Your task to perform on an android device: Show me productivity apps on the Play Store Image 0: 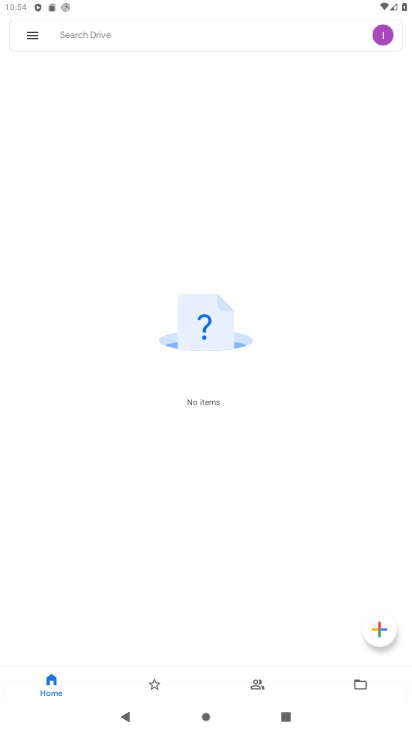
Step 0: click (411, 369)
Your task to perform on an android device: Show me productivity apps on the Play Store Image 1: 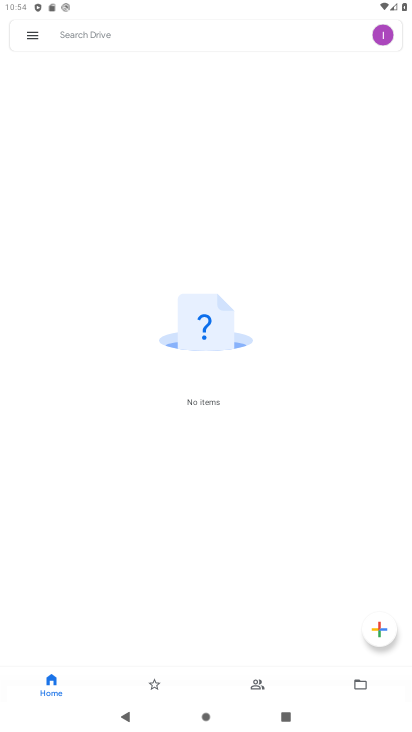
Step 1: press back button
Your task to perform on an android device: Show me productivity apps on the Play Store Image 2: 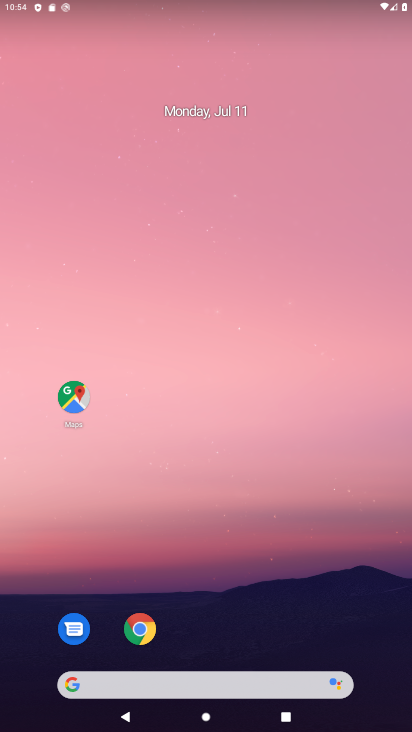
Step 2: drag from (332, 687) to (185, 20)
Your task to perform on an android device: Show me productivity apps on the Play Store Image 3: 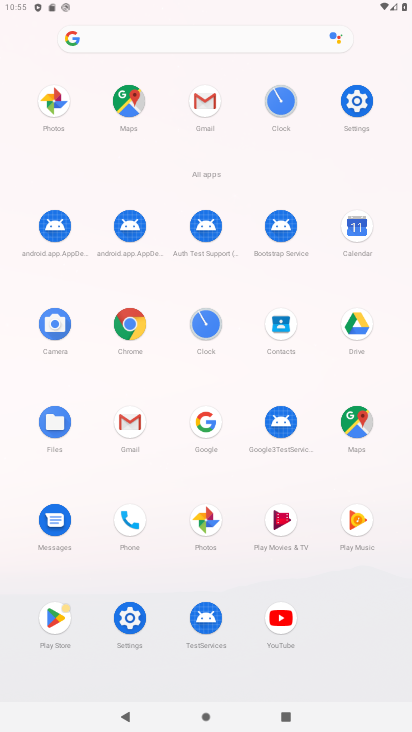
Step 3: click (45, 605)
Your task to perform on an android device: Show me productivity apps on the Play Store Image 4: 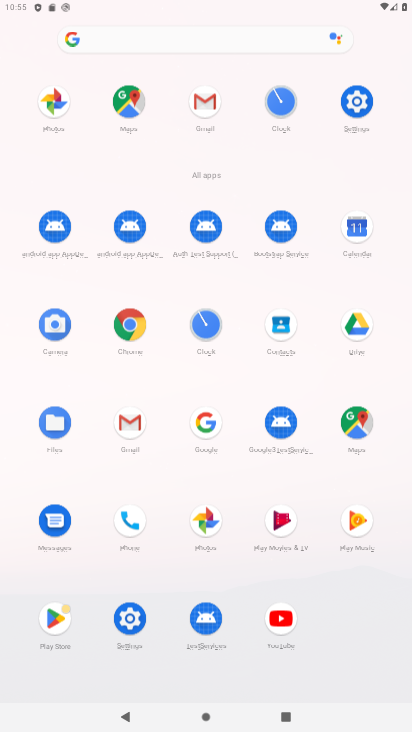
Step 4: click (57, 615)
Your task to perform on an android device: Show me productivity apps on the Play Store Image 5: 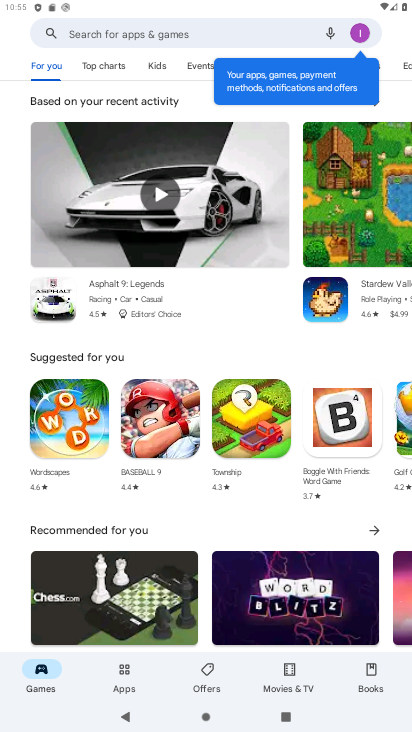
Step 5: click (145, 27)
Your task to perform on an android device: Show me productivity apps on the Play Store Image 6: 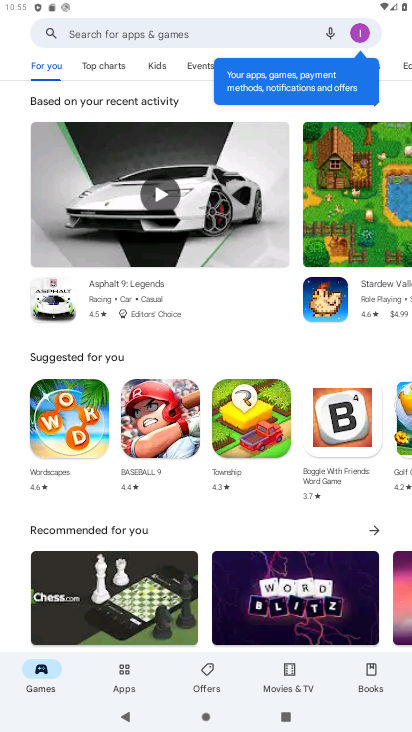
Step 6: click (145, 27)
Your task to perform on an android device: Show me productivity apps on the Play Store Image 7: 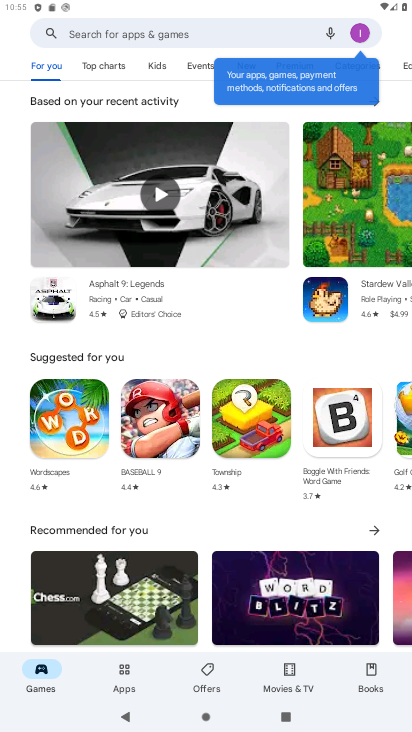
Step 7: click (147, 30)
Your task to perform on an android device: Show me productivity apps on the Play Store Image 8: 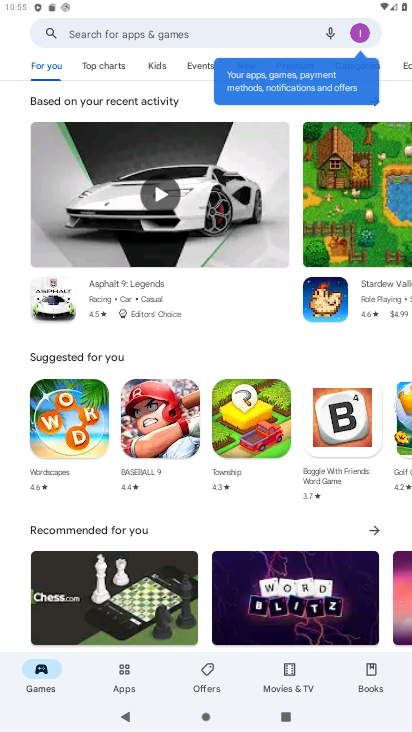
Step 8: click (147, 30)
Your task to perform on an android device: Show me productivity apps on the Play Store Image 9: 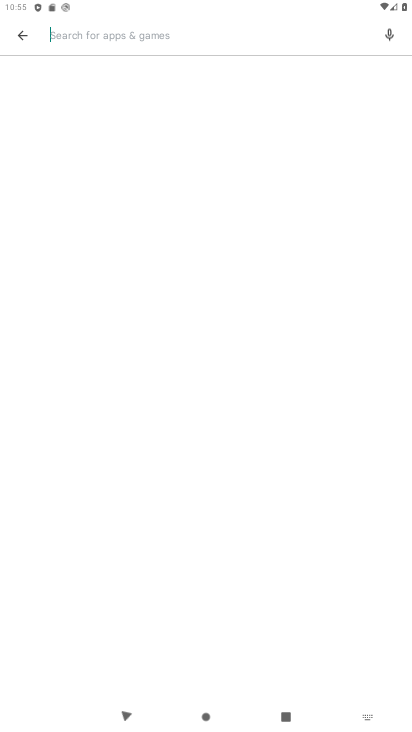
Step 9: click (151, 32)
Your task to perform on an android device: Show me productivity apps on the Play Store Image 10: 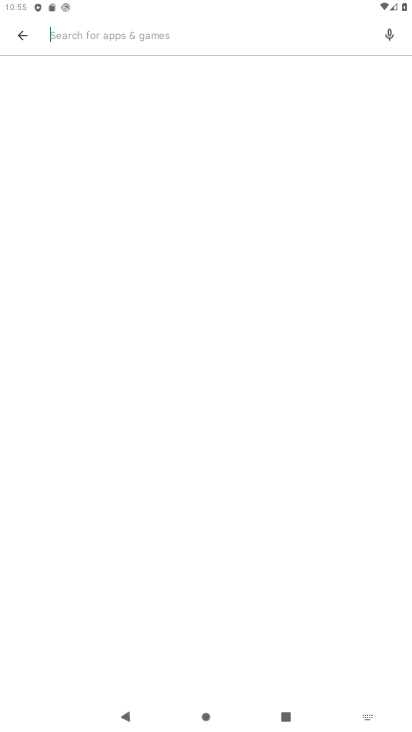
Step 10: click (152, 33)
Your task to perform on an android device: Show me productivity apps on the Play Store Image 11: 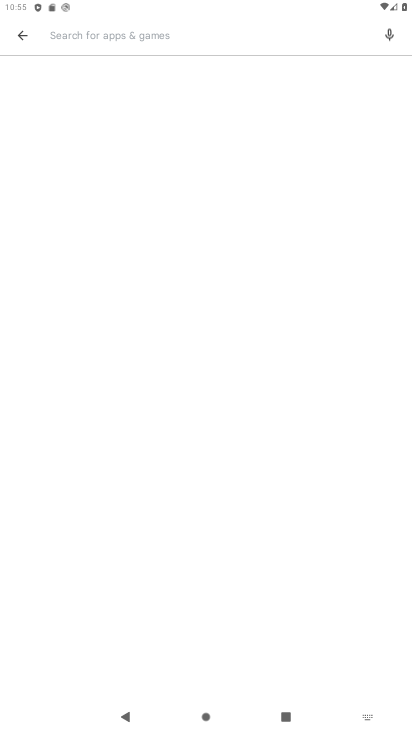
Step 11: click (152, 34)
Your task to perform on an android device: Show me productivity apps on the Play Store Image 12: 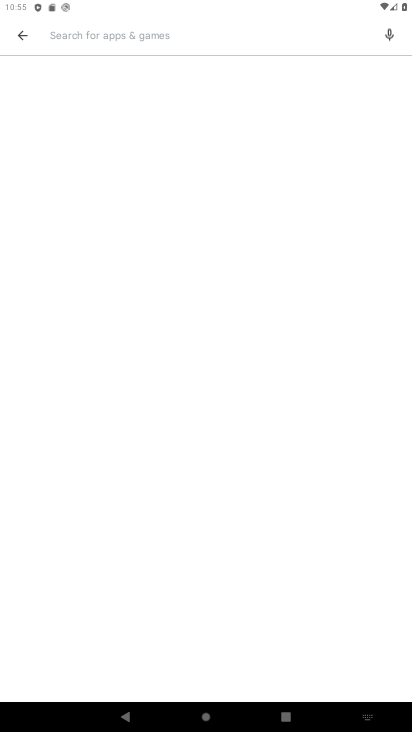
Step 12: type "productivbity apps"
Your task to perform on an android device: Show me productivity apps on the Play Store Image 13: 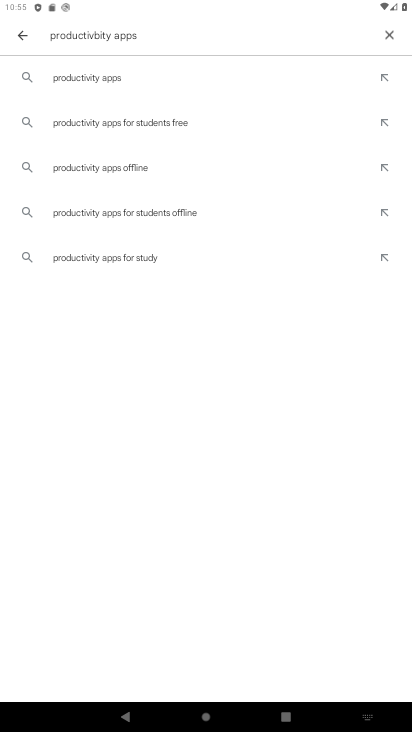
Step 13: click (101, 82)
Your task to perform on an android device: Show me productivity apps on the Play Store Image 14: 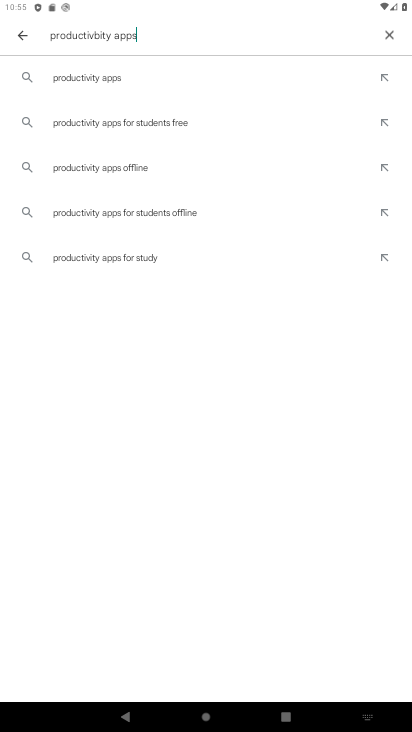
Step 14: click (96, 79)
Your task to perform on an android device: Show me productivity apps on the Play Store Image 15: 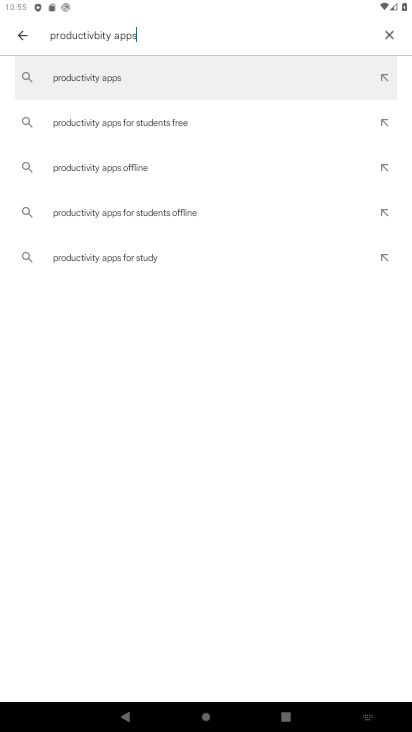
Step 15: click (92, 78)
Your task to perform on an android device: Show me productivity apps on the Play Store Image 16: 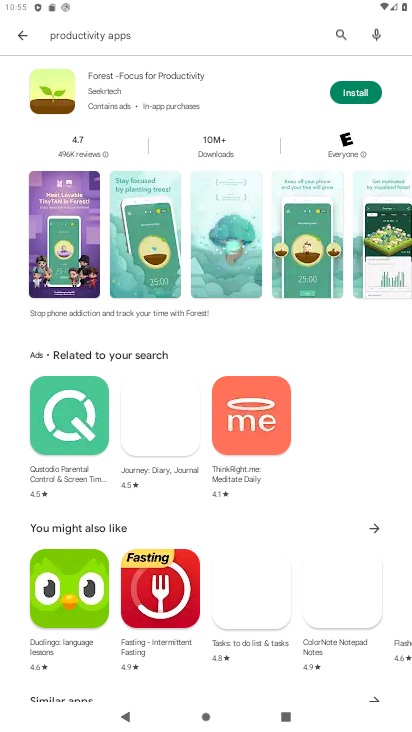
Step 16: task complete